Your task to perform on an android device: change notifications settings Image 0: 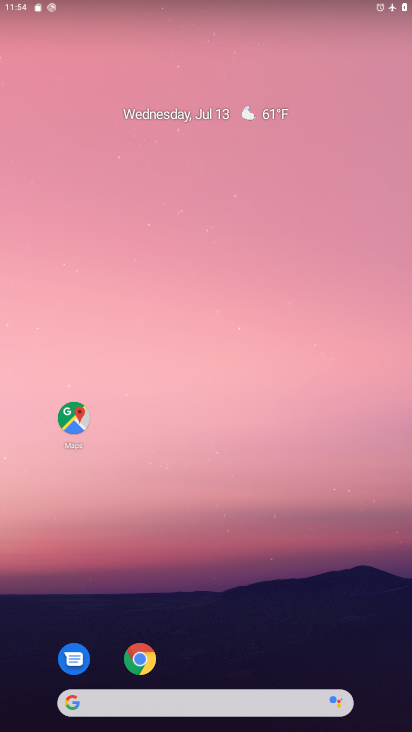
Step 0: press home button
Your task to perform on an android device: change notifications settings Image 1: 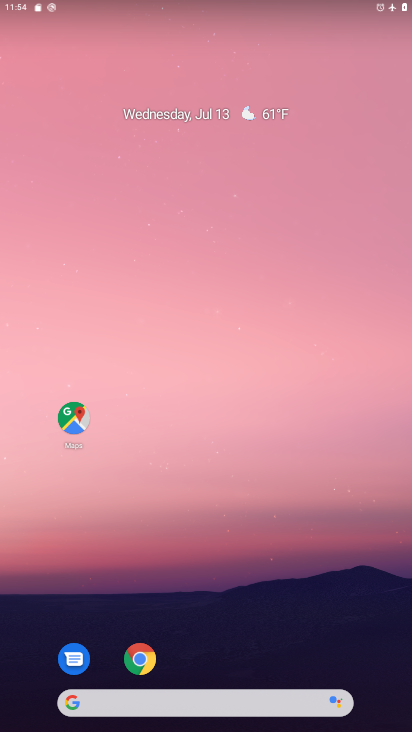
Step 1: drag from (220, 664) to (218, 30)
Your task to perform on an android device: change notifications settings Image 2: 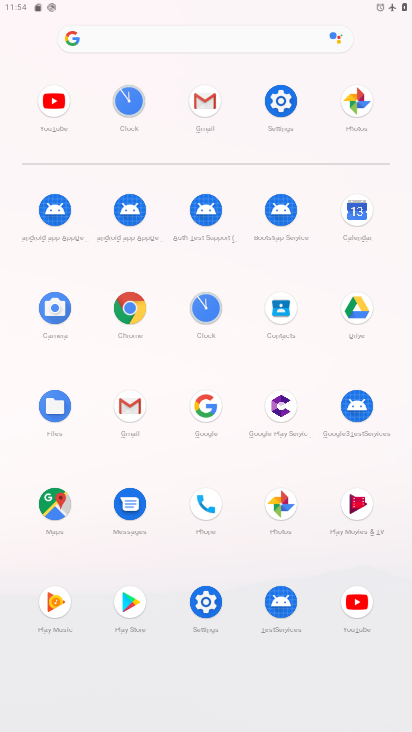
Step 2: click (286, 96)
Your task to perform on an android device: change notifications settings Image 3: 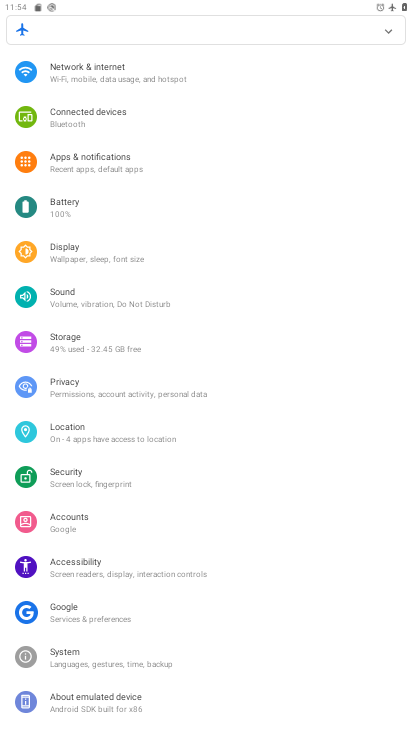
Step 3: click (128, 155)
Your task to perform on an android device: change notifications settings Image 4: 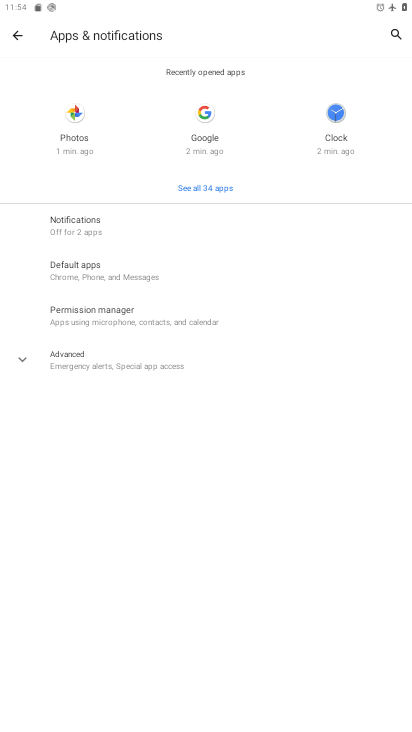
Step 4: click (110, 223)
Your task to perform on an android device: change notifications settings Image 5: 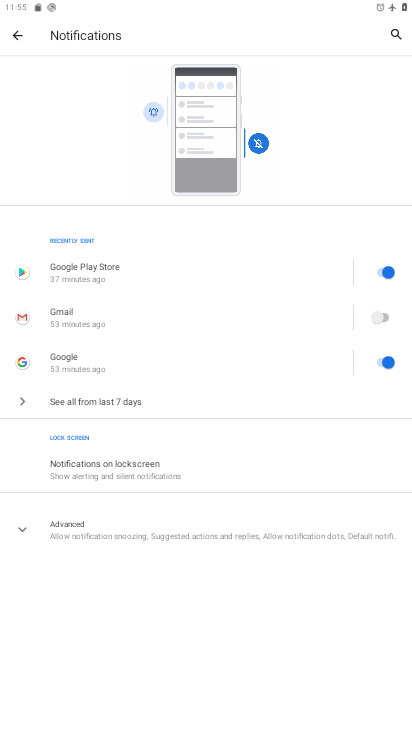
Step 5: click (20, 528)
Your task to perform on an android device: change notifications settings Image 6: 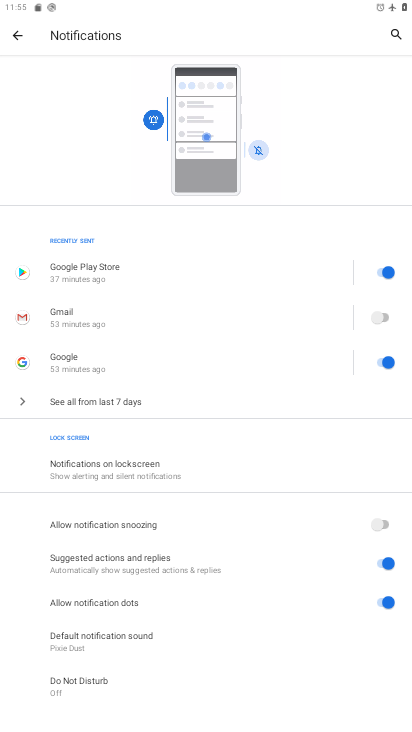
Step 6: click (386, 557)
Your task to perform on an android device: change notifications settings Image 7: 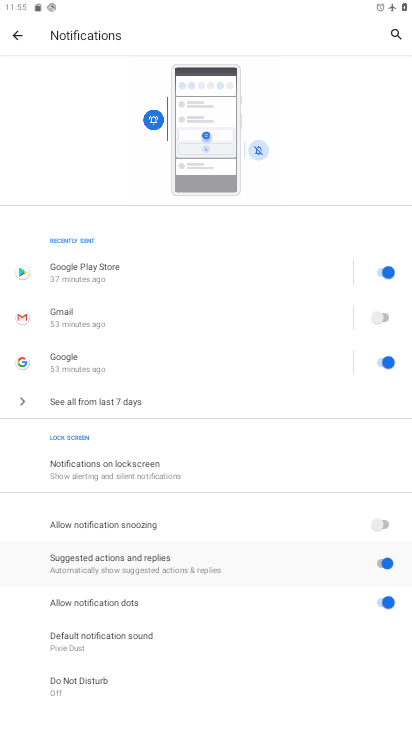
Step 7: click (388, 597)
Your task to perform on an android device: change notifications settings Image 8: 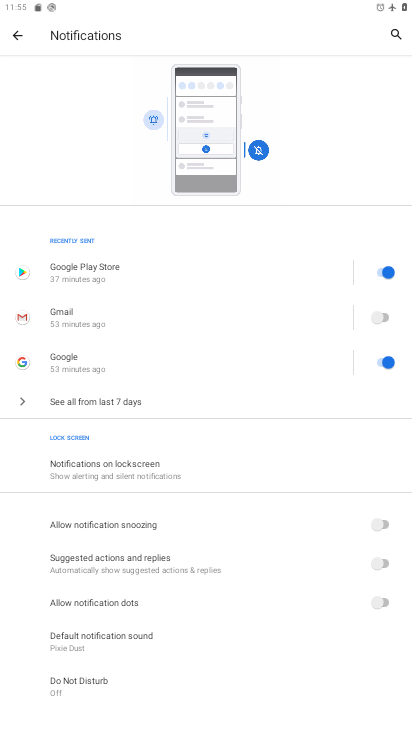
Step 8: click (374, 347)
Your task to perform on an android device: change notifications settings Image 9: 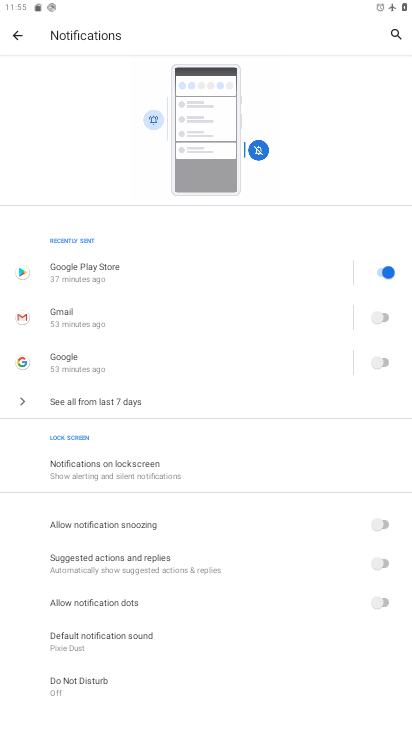
Step 9: click (380, 270)
Your task to perform on an android device: change notifications settings Image 10: 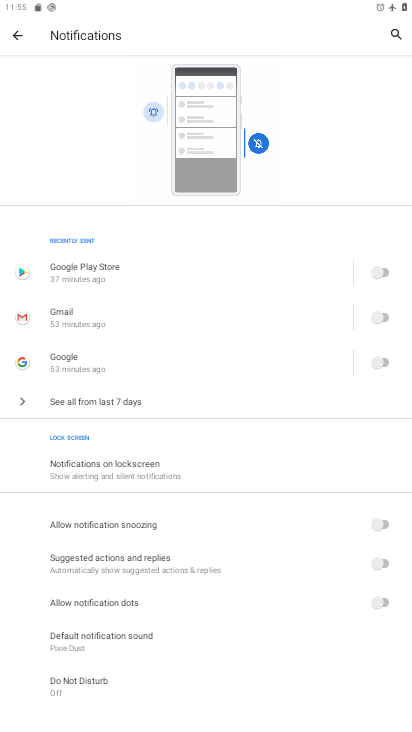
Step 10: task complete